Your task to perform on an android device: Do I have any events this weekend? Image 0: 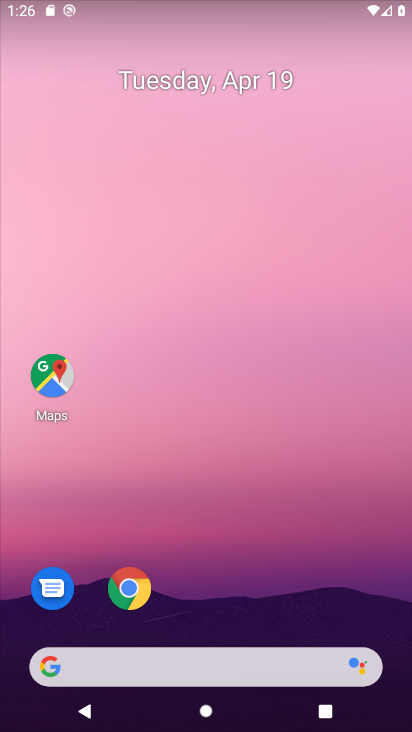
Step 0: drag from (176, 482) to (191, 23)
Your task to perform on an android device: Do I have any events this weekend? Image 1: 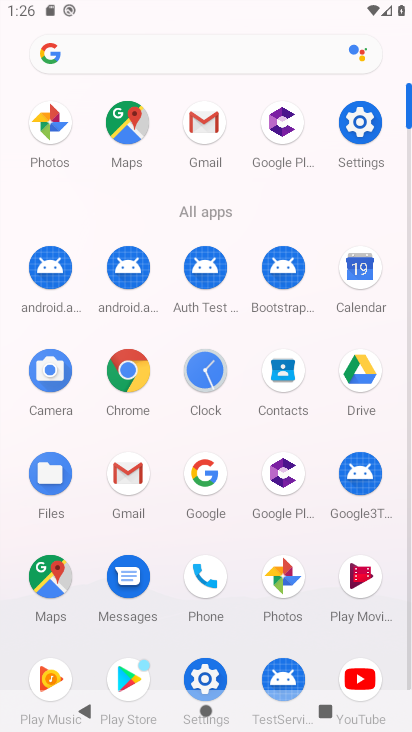
Step 1: click (368, 261)
Your task to perform on an android device: Do I have any events this weekend? Image 2: 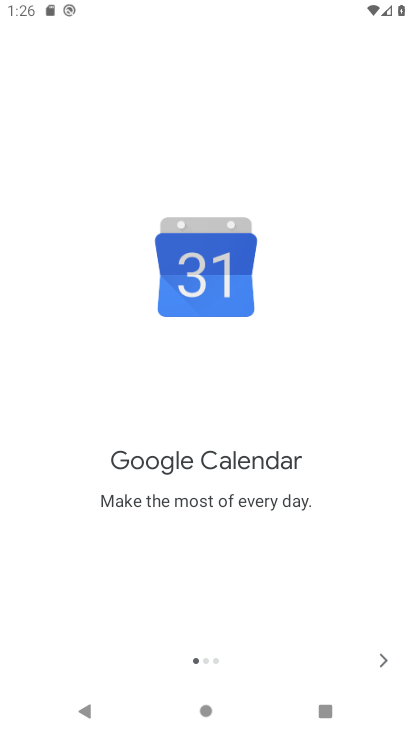
Step 2: click (385, 659)
Your task to perform on an android device: Do I have any events this weekend? Image 3: 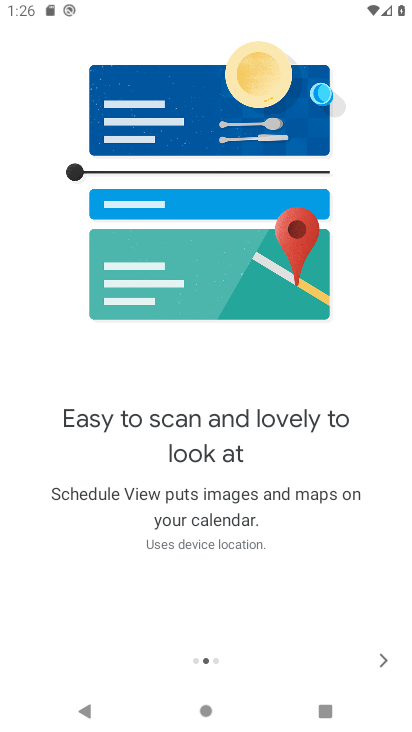
Step 3: click (385, 659)
Your task to perform on an android device: Do I have any events this weekend? Image 4: 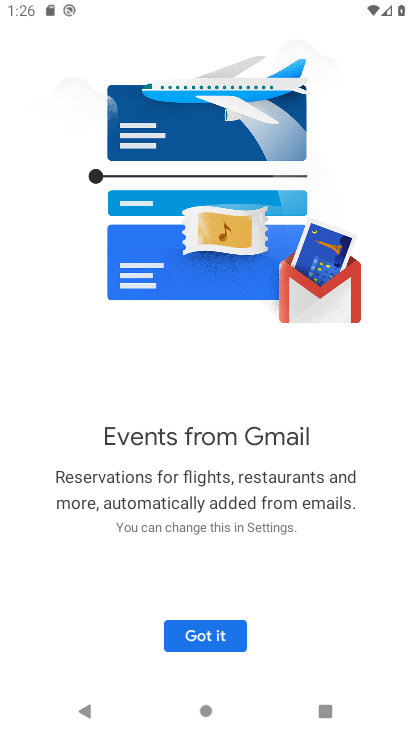
Step 4: click (200, 636)
Your task to perform on an android device: Do I have any events this weekend? Image 5: 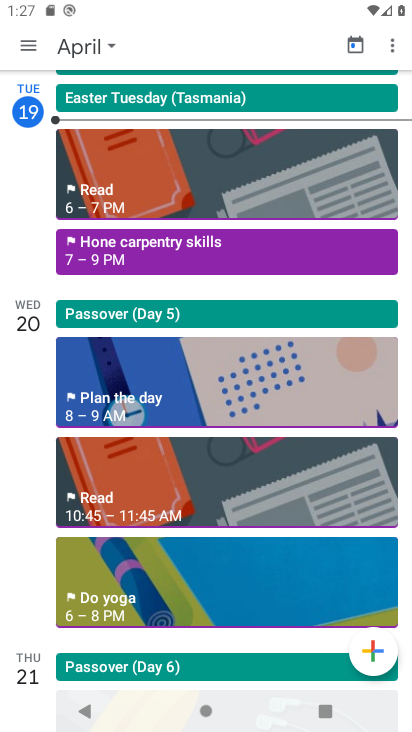
Step 5: click (101, 53)
Your task to perform on an android device: Do I have any events this weekend? Image 6: 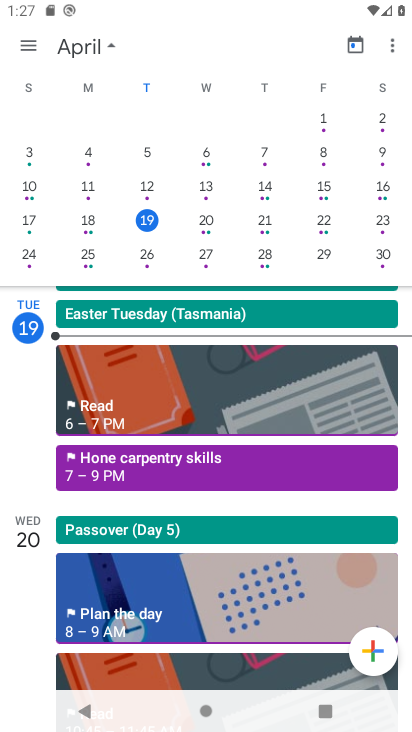
Step 6: click (323, 228)
Your task to perform on an android device: Do I have any events this weekend? Image 7: 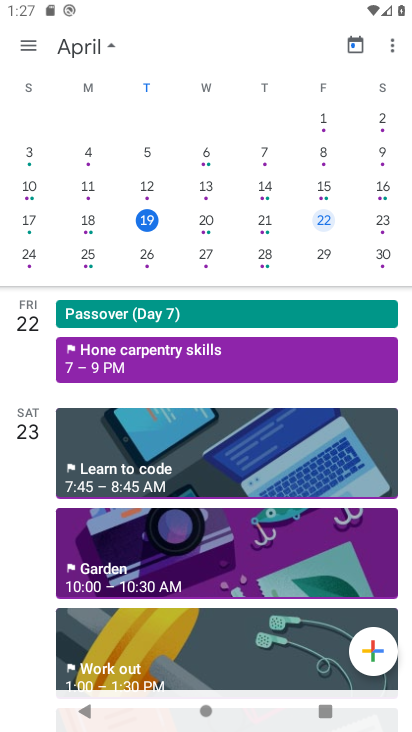
Step 7: click (379, 221)
Your task to perform on an android device: Do I have any events this weekend? Image 8: 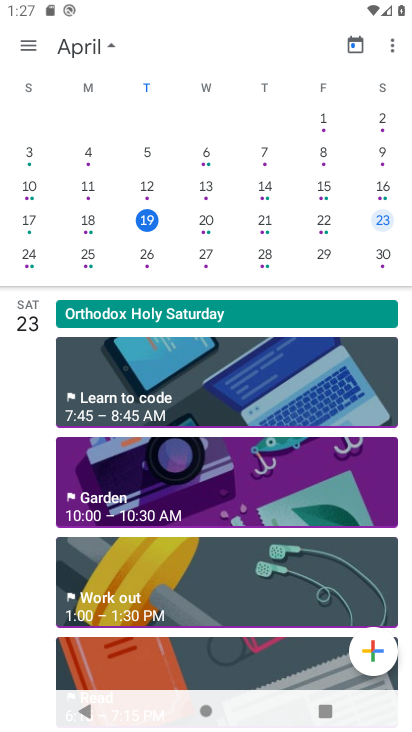
Step 8: click (31, 256)
Your task to perform on an android device: Do I have any events this weekend? Image 9: 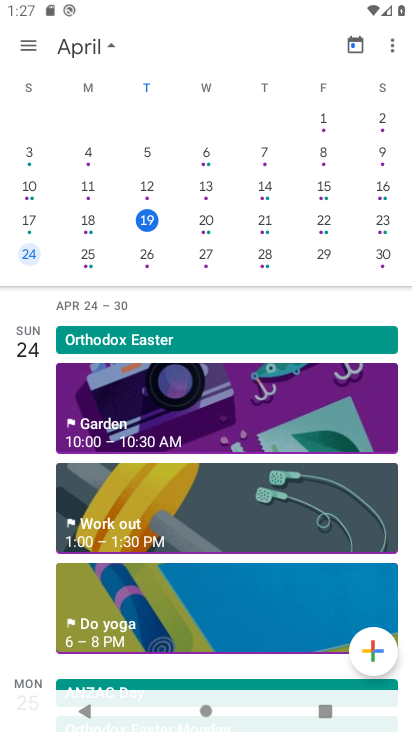
Step 9: task complete